Your task to perform on an android device: Go to battery settings Image 0: 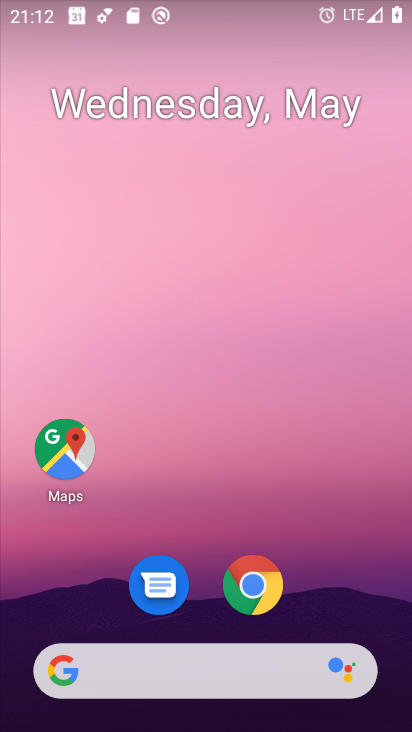
Step 0: drag from (306, 588) to (289, 105)
Your task to perform on an android device: Go to battery settings Image 1: 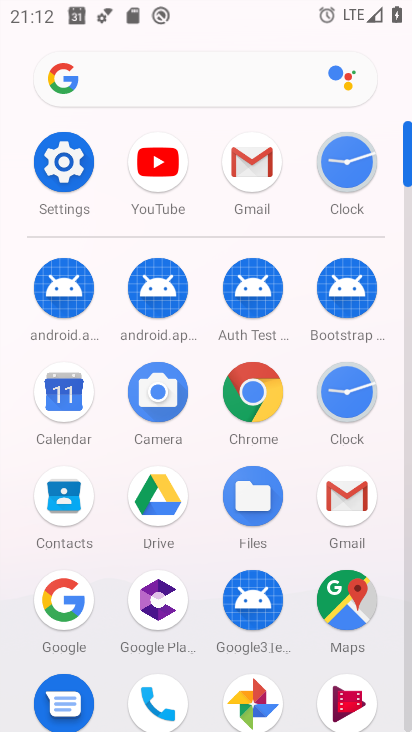
Step 1: click (55, 157)
Your task to perform on an android device: Go to battery settings Image 2: 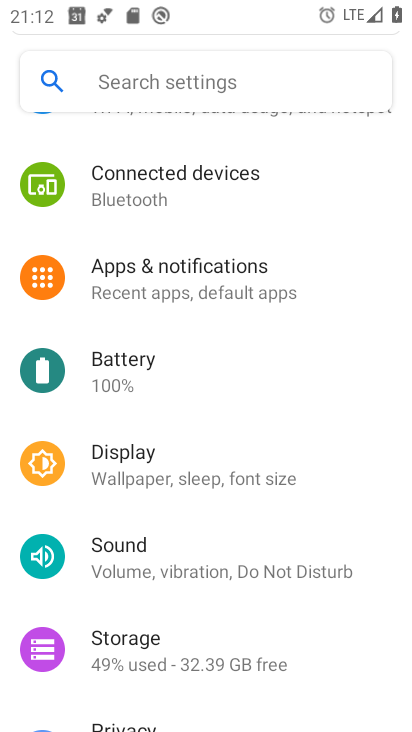
Step 2: click (153, 220)
Your task to perform on an android device: Go to battery settings Image 3: 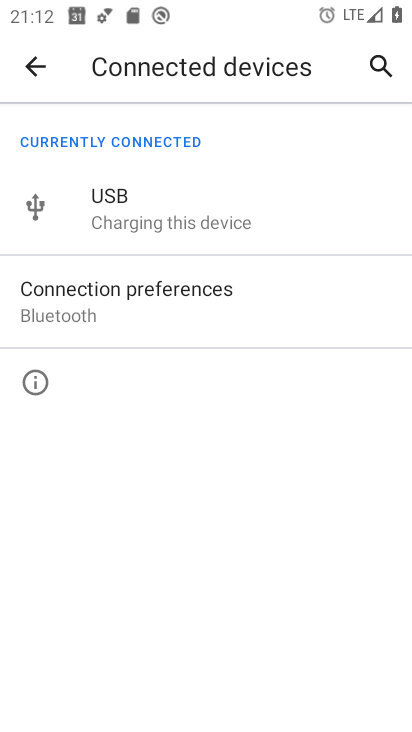
Step 3: click (36, 73)
Your task to perform on an android device: Go to battery settings Image 4: 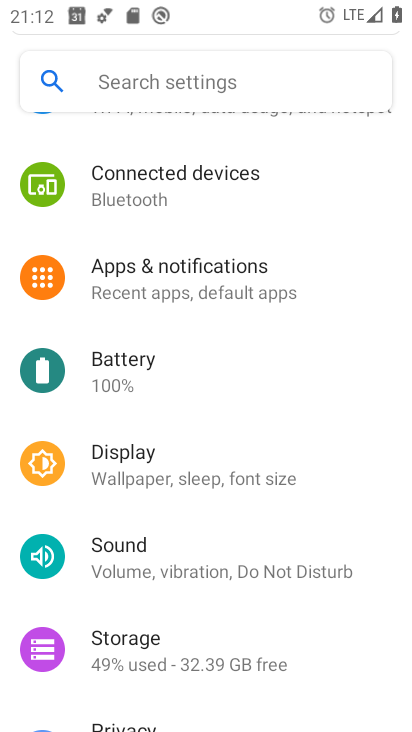
Step 4: click (152, 368)
Your task to perform on an android device: Go to battery settings Image 5: 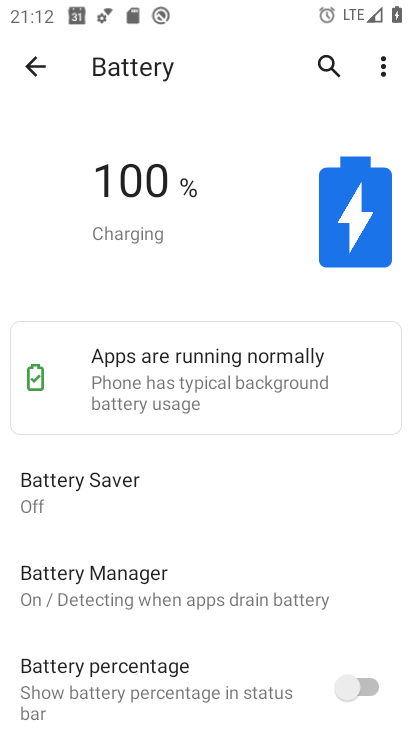
Step 5: task complete